Your task to perform on an android device: turn on the 24-hour format for clock Image 0: 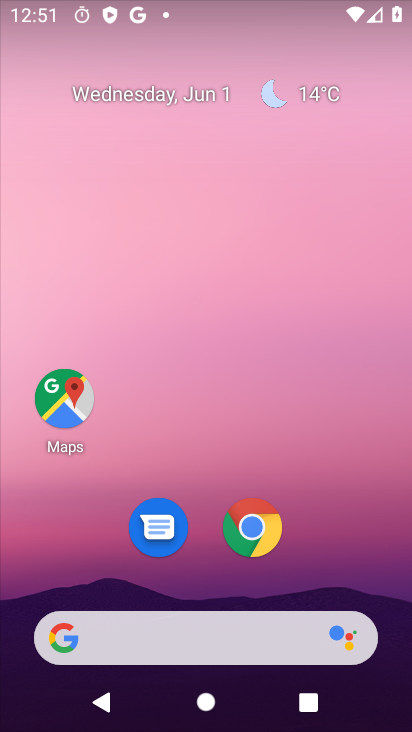
Step 0: drag from (234, 602) to (337, 62)
Your task to perform on an android device: turn on the 24-hour format for clock Image 1: 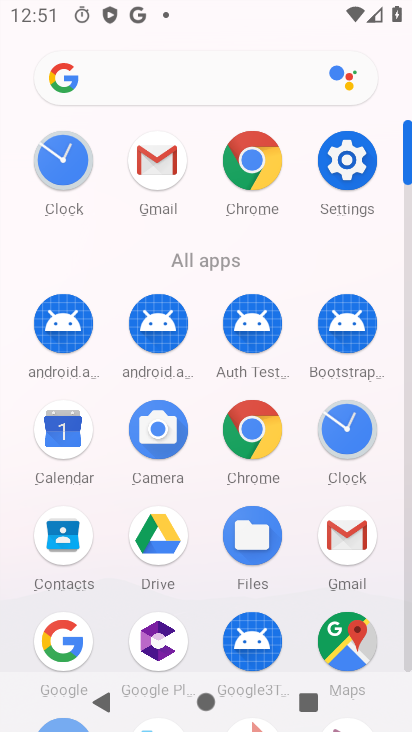
Step 1: click (334, 457)
Your task to perform on an android device: turn on the 24-hour format for clock Image 2: 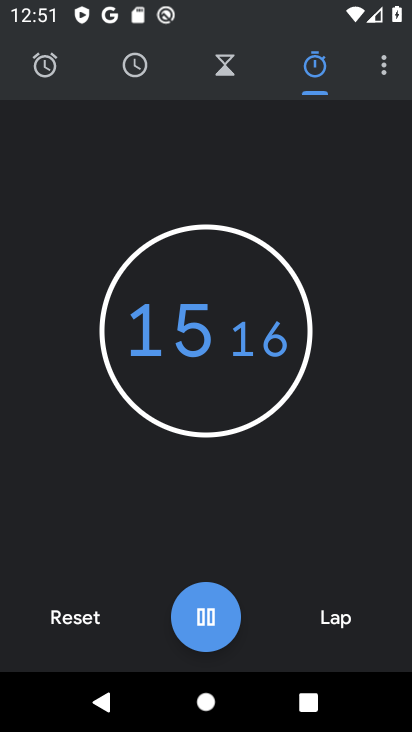
Step 2: click (393, 67)
Your task to perform on an android device: turn on the 24-hour format for clock Image 3: 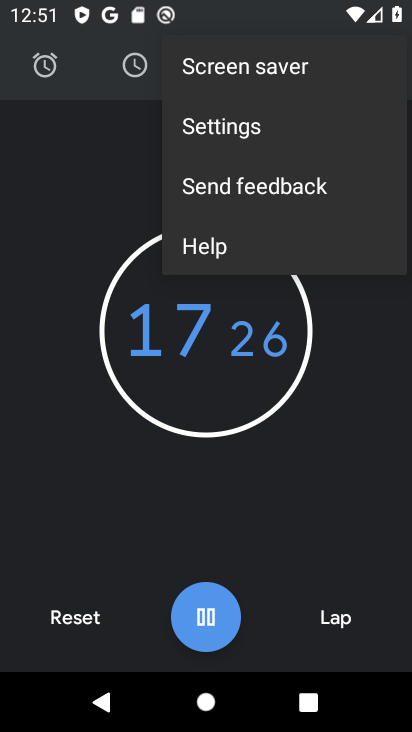
Step 3: click (268, 141)
Your task to perform on an android device: turn on the 24-hour format for clock Image 4: 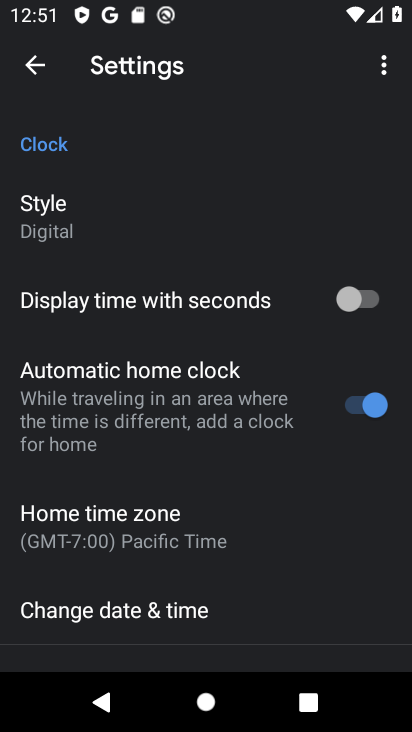
Step 4: click (176, 609)
Your task to perform on an android device: turn on the 24-hour format for clock Image 5: 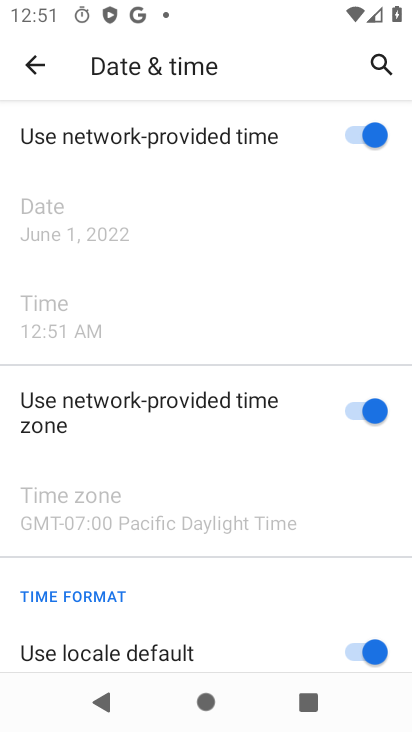
Step 5: task complete